Your task to perform on an android device: turn on sleep mode Image 0: 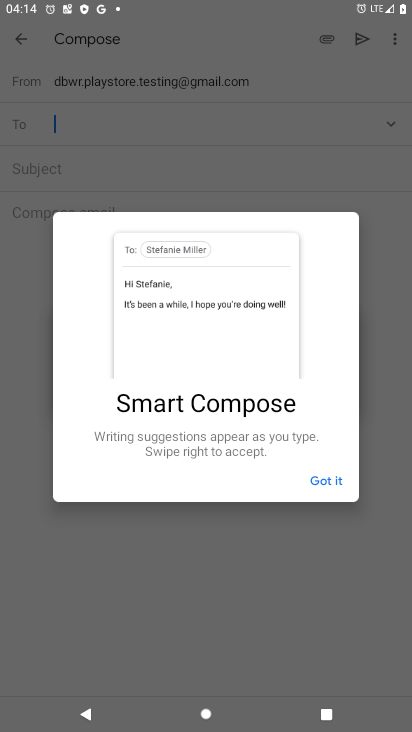
Step 0: press home button
Your task to perform on an android device: turn on sleep mode Image 1: 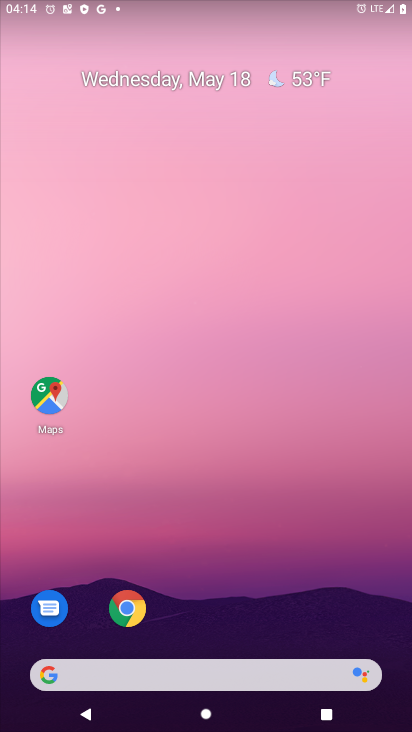
Step 1: drag from (254, 617) to (240, 36)
Your task to perform on an android device: turn on sleep mode Image 2: 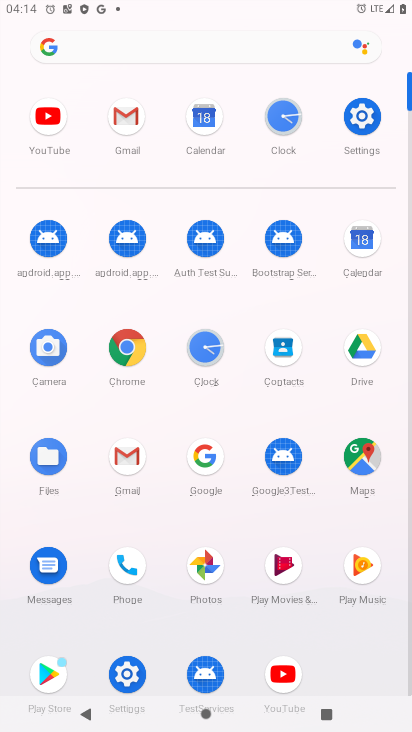
Step 2: click (361, 118)
Your task to perform on an android device: turn on sleep mode Image 3: 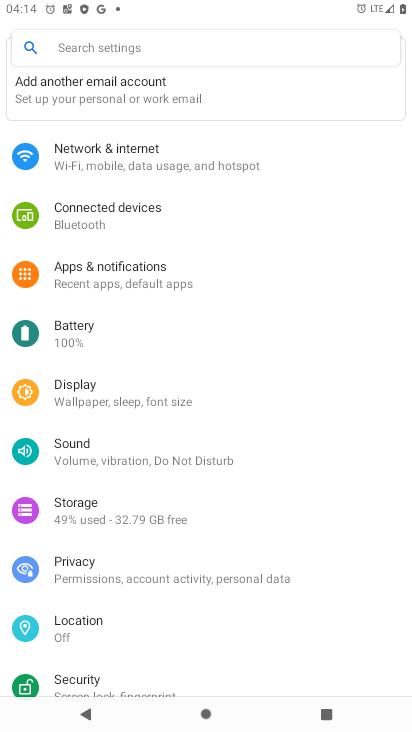
Step 3: click (94, 393)
Your task to perform on an android device: turn on sleep mode Image 4: 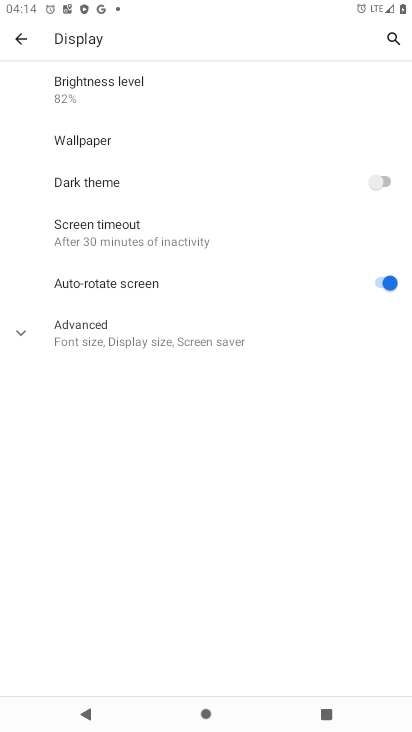
Step 4: click (26, 334)
Your task to perform on an android device: turn on sleep mode Image 5: 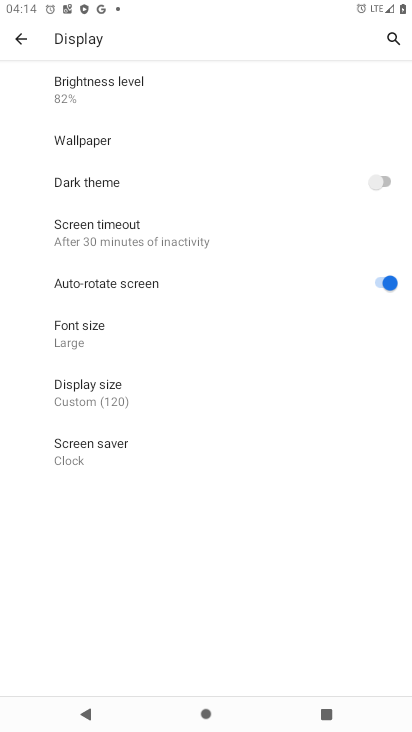
Step 5: task complete